Your task to perform on an android device: open app "Google Photos" Image 0: 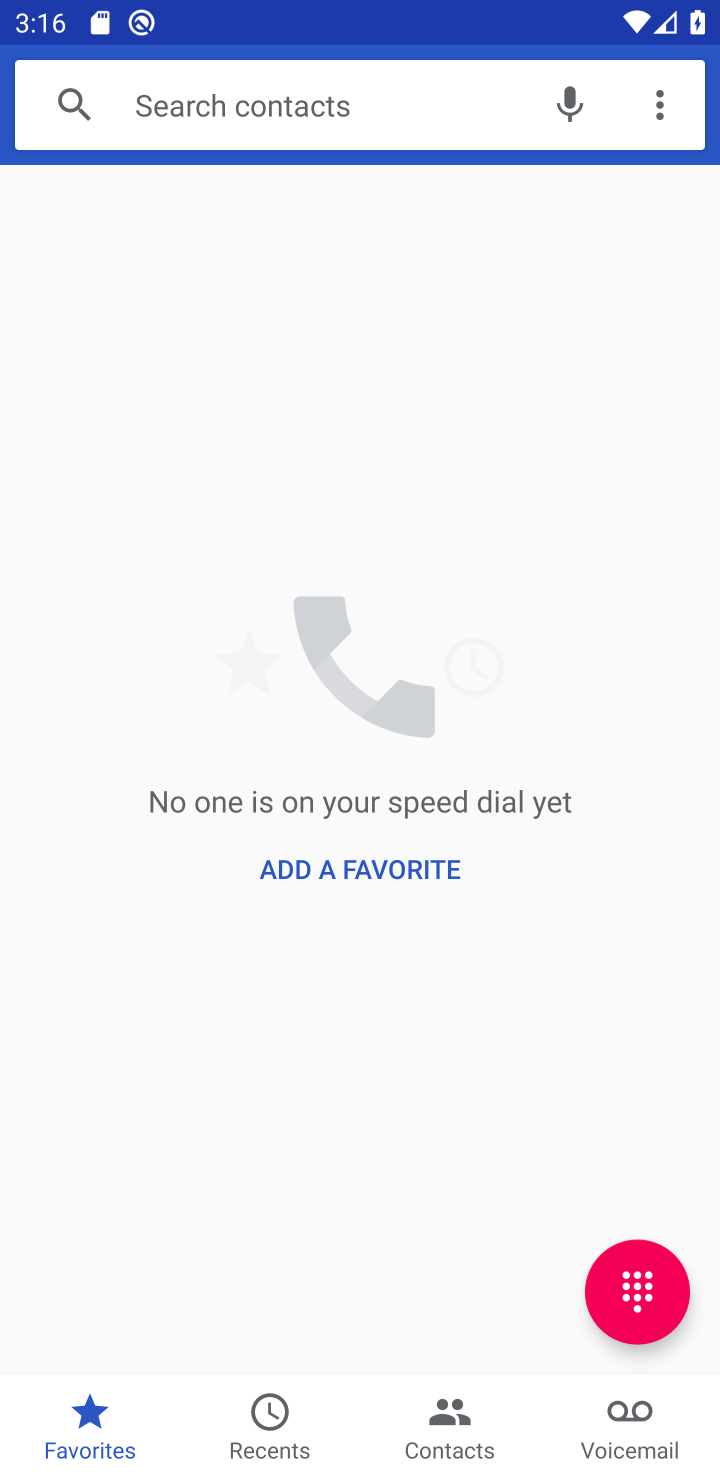
Step 0: press home button
Your task to perform on an android device: open app "Google Photos" Image 1: 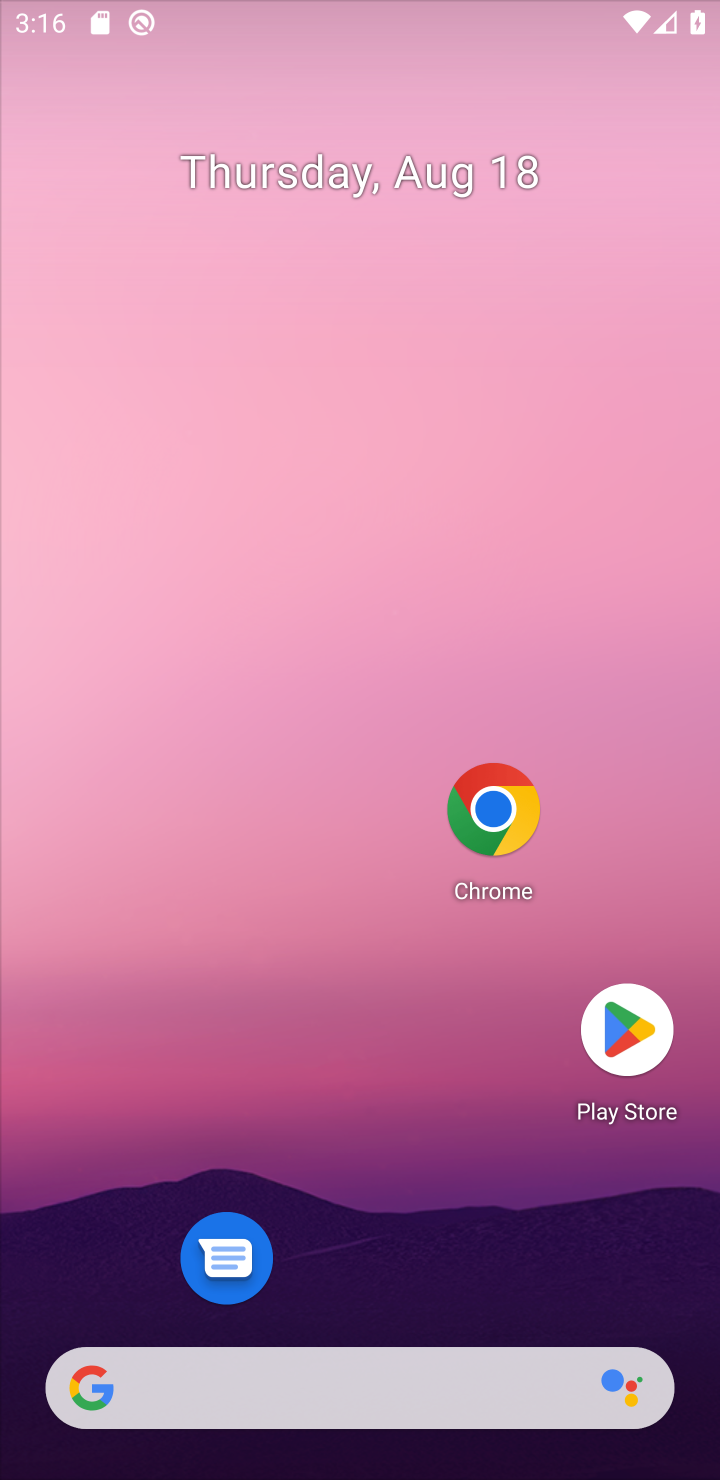
Step 1: drag from (255, 1320) to (317, 491)
Your task to perform on an android device: open app "Google Photos" Image 2: 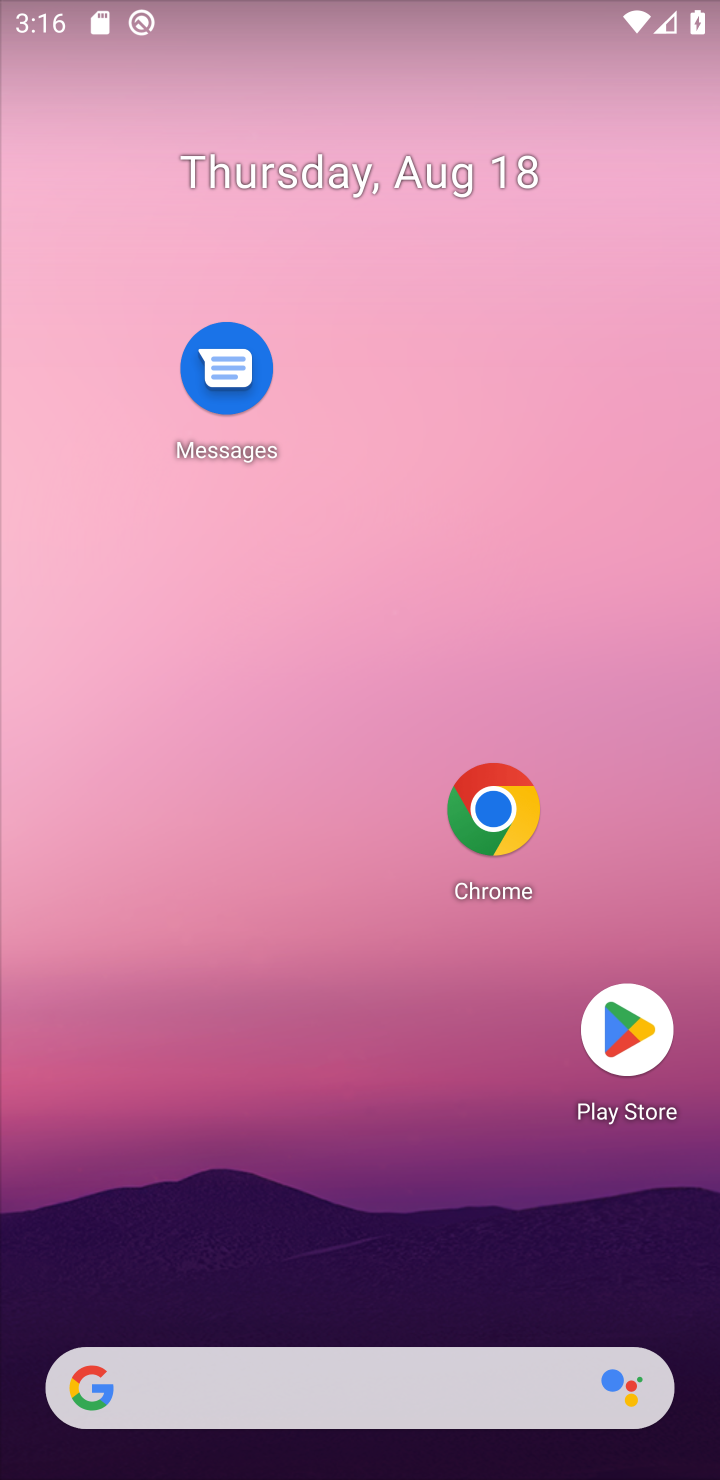
Step 2: click (598, 1016)
Your task to perform on an android device: open app "Google Photos" Image 3: 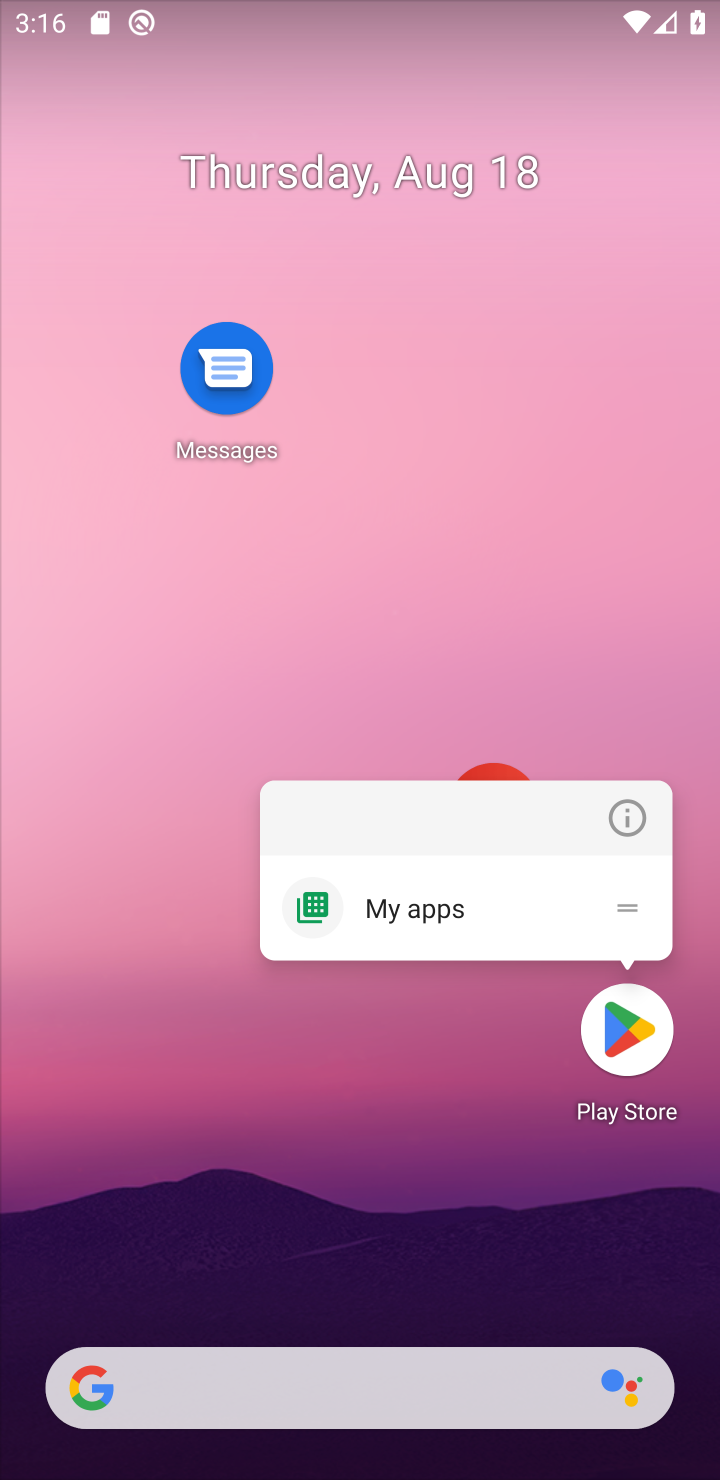
Step 3: click (623, 1045)
Your task to perform on an android device: open app "Google Photos" Image 4: 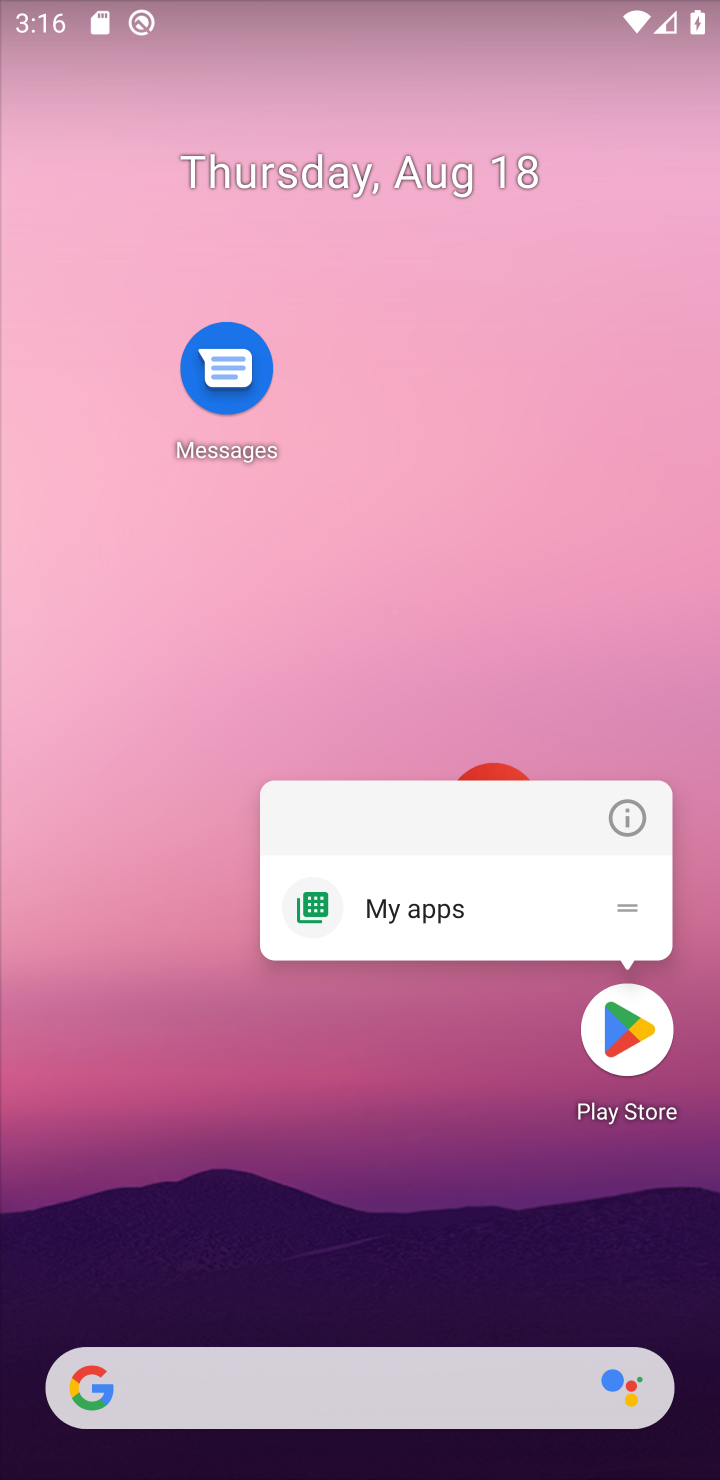
Step 4: click (615, 1045)
Your task to perform on an android device: open app "Google Photos" Image 5: 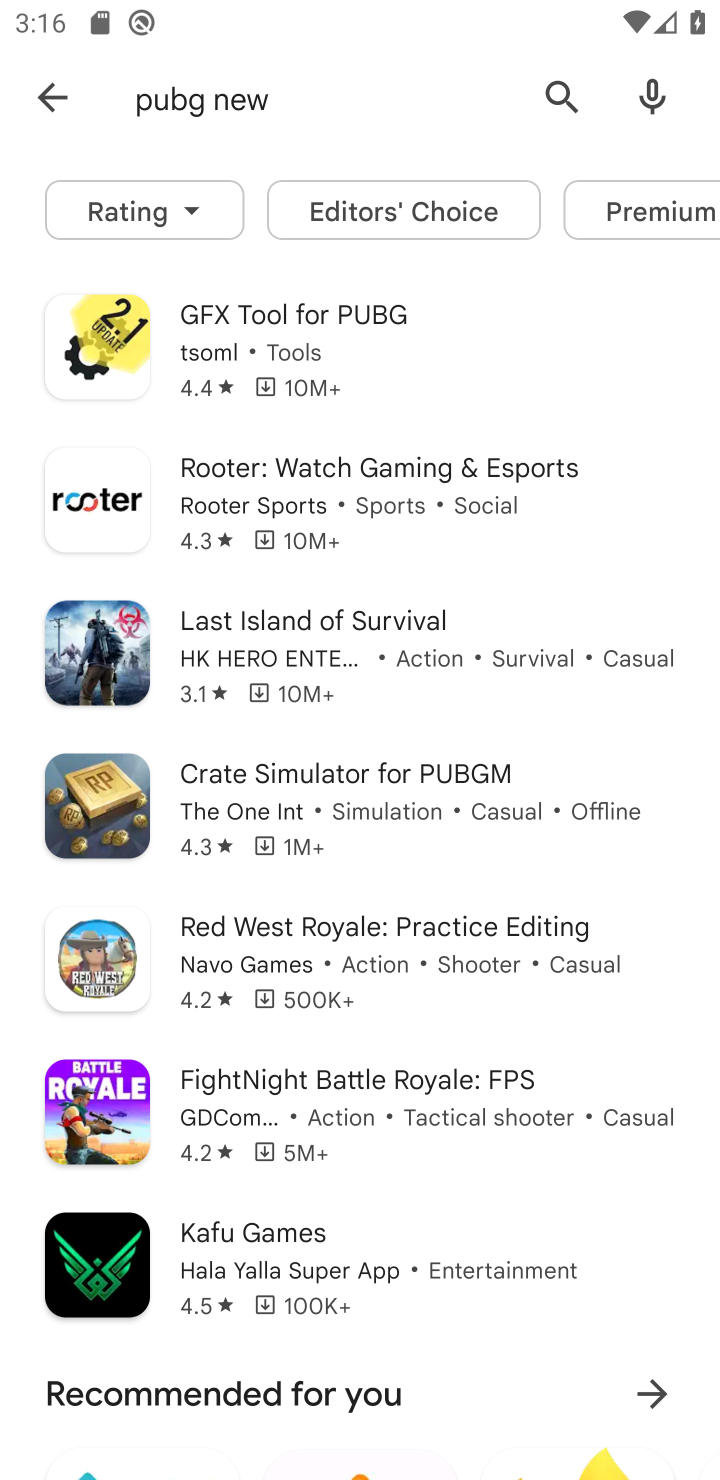
Step 5: click (96, 85)
Your task to perform on an android device: open app "Google Photos" Image 6: 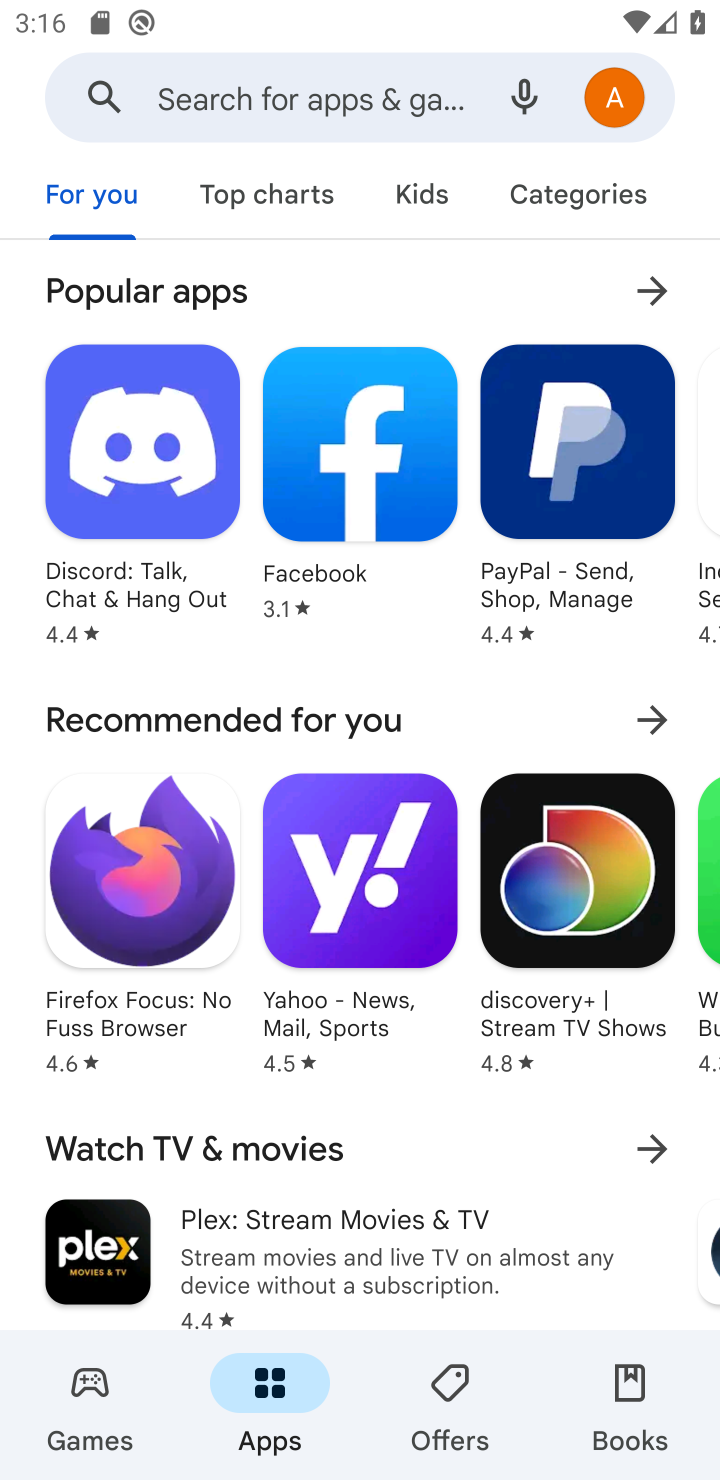
Step 6: click (340, 83)
Your task to perform on an android device: open app "Google Photos" Image 7: 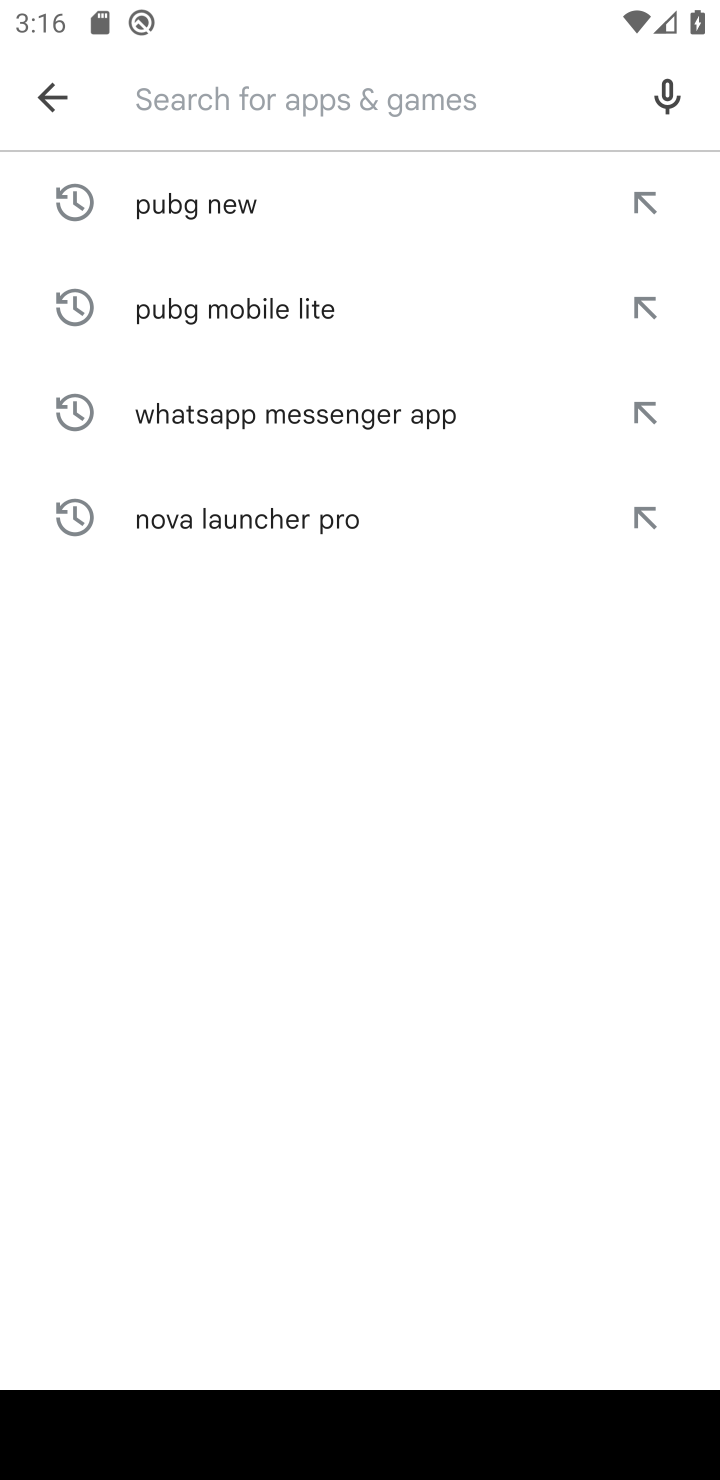
Step 7: type "google photo "
Your task to perform on an android device: open app "Google Photos" Image 8: 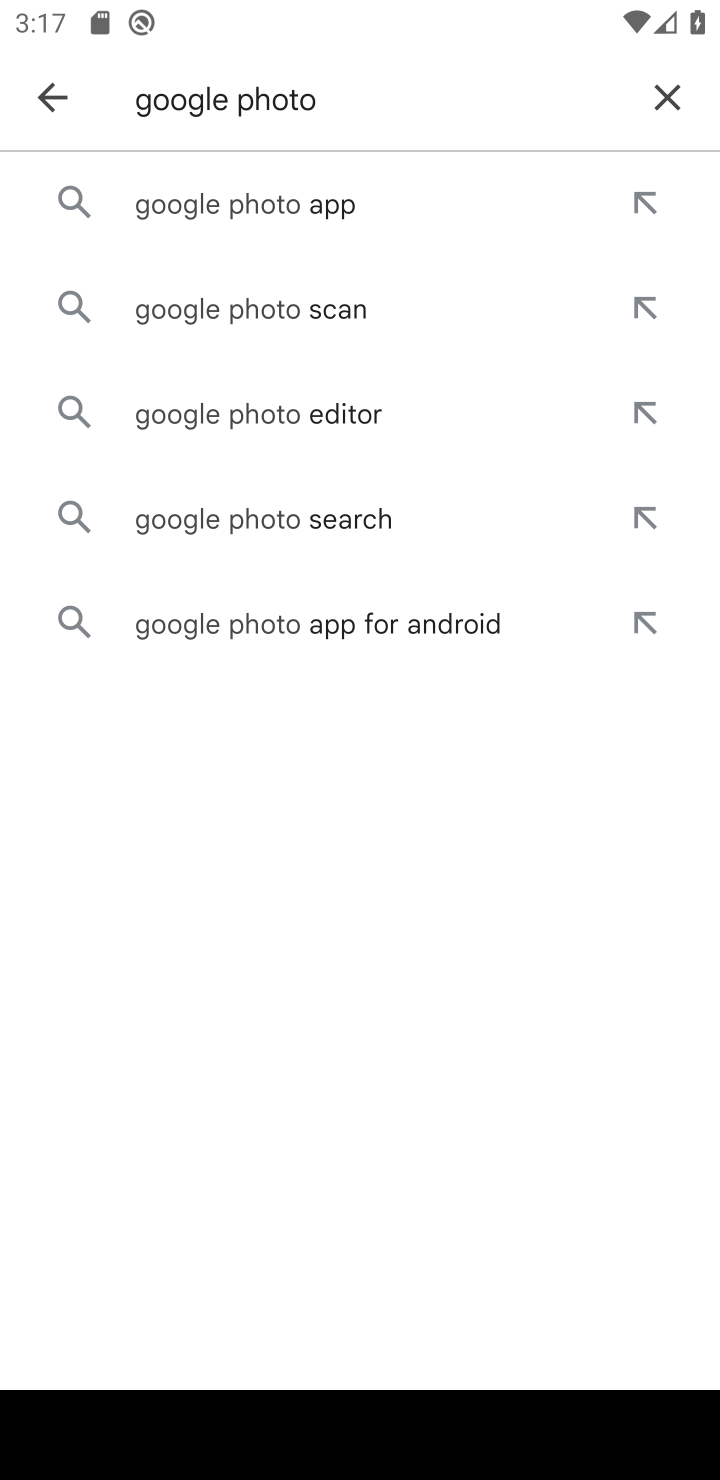
Step 8: click (172, 216)
Your task to perform on an android device: open app "Google Photos" Image 9: 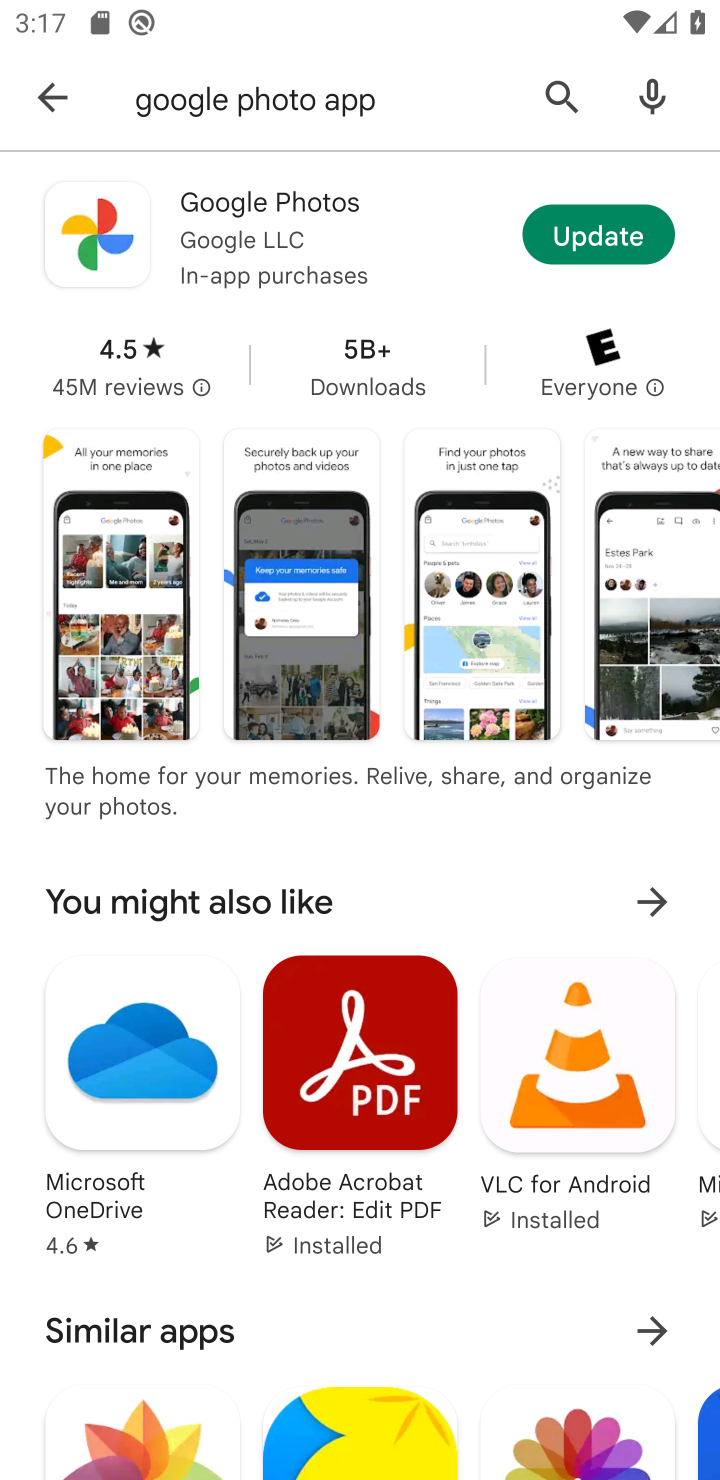
Step 9: click (590, 243)
Your task to perform on an android device: open app "Google Photos" Image 10: 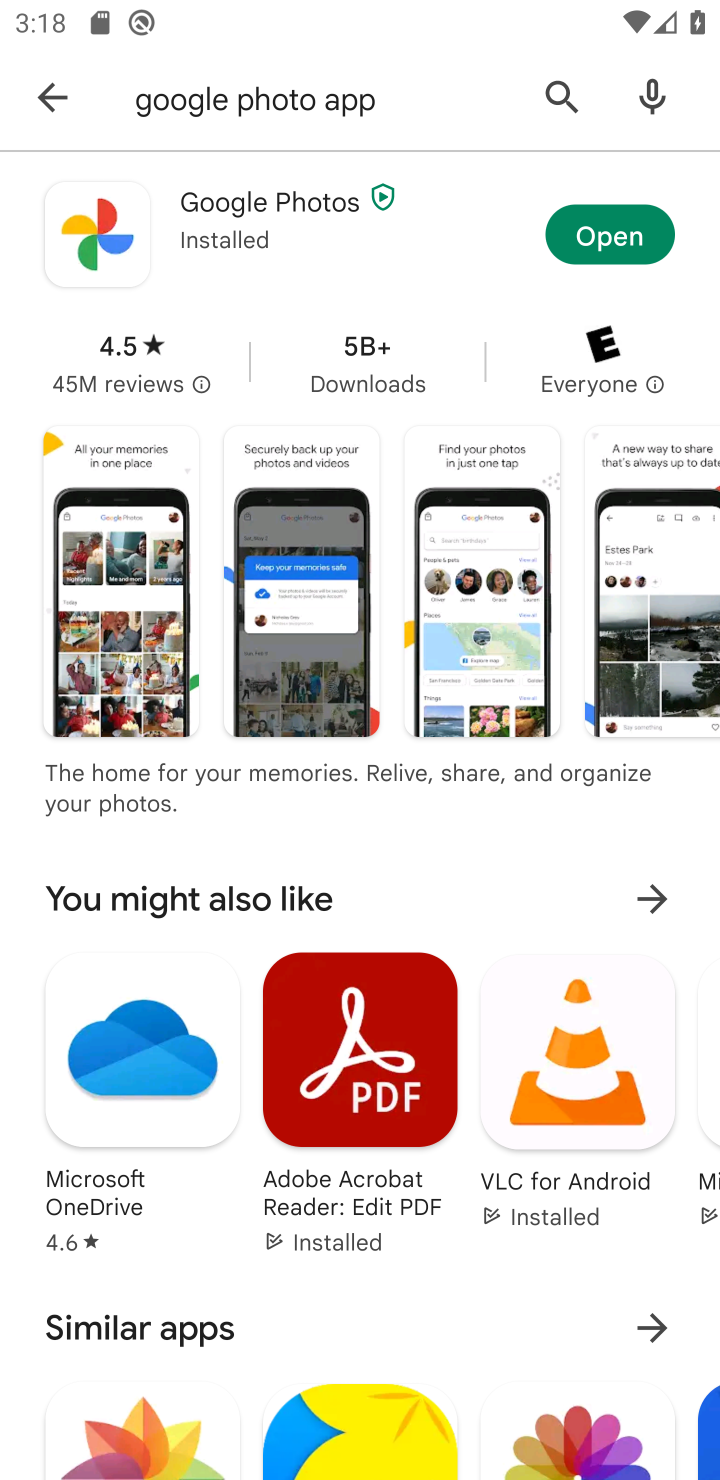
Step 10: click (623, 223)
Your task to perform on an android device: open app "Google Photos" Image 11: 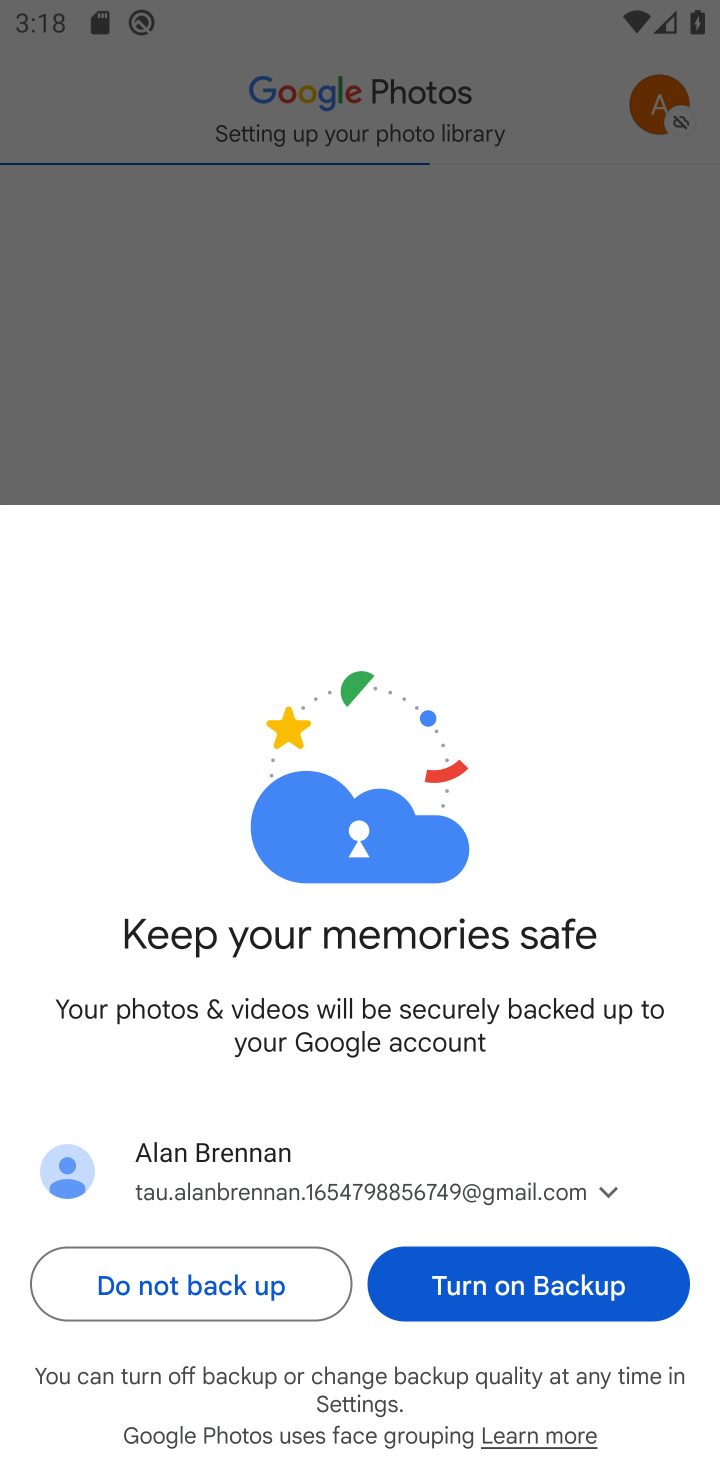
Step 11: task complete